Your task to perform on an android device: Go to display settings Image 0: 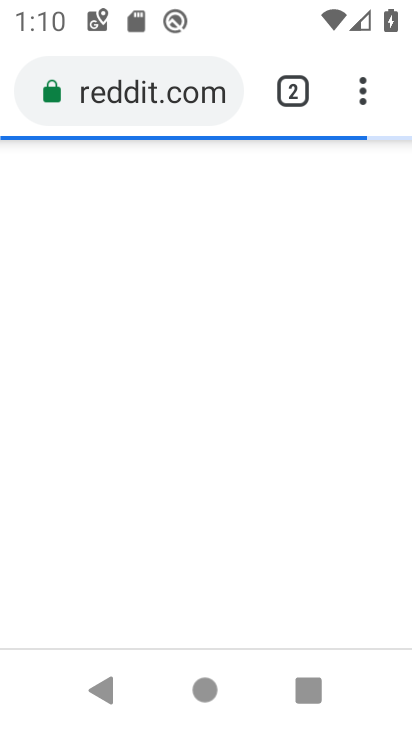
Step 0: press home button
Your task to perform on an android device: Go to display settings Image 1: 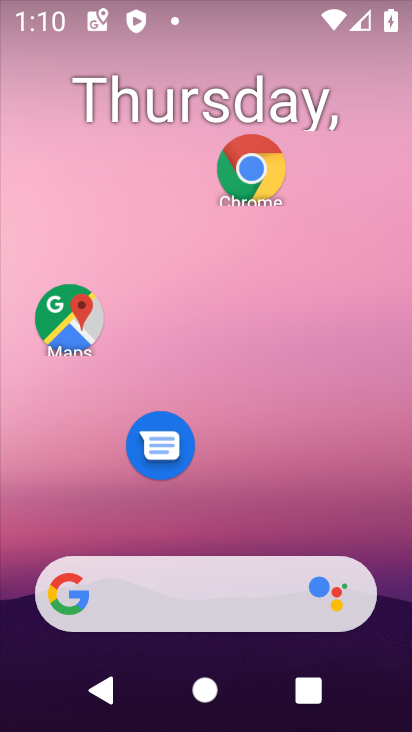
Step 1: drag from (230, 638) to (181, 231)
Your task to perform on an android device: Go to display settings Image 2: 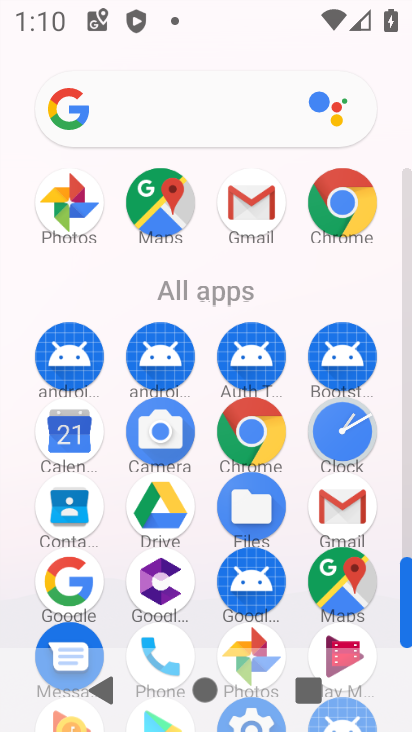
Step 2: drag from (120, 550) to (116, 413)
Your task to perform on an android device: Go to display settings Image 3: 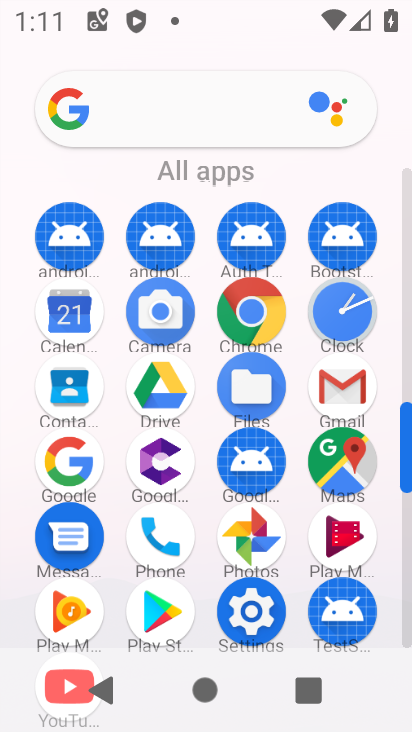
Step 3: click (242, 608)
Your task to perform on an android device: Go to display settings Image 4: 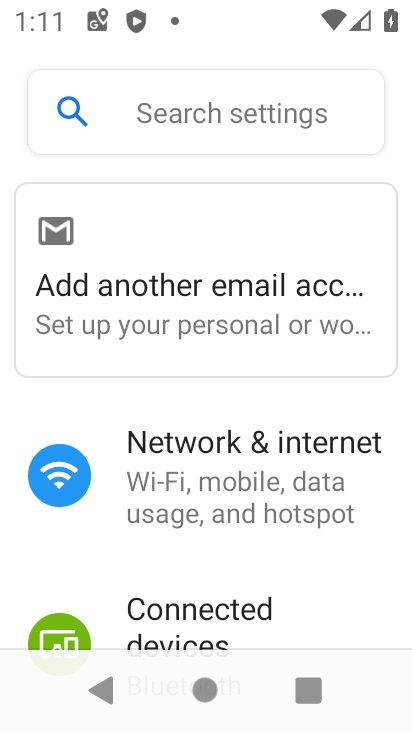
Step 4: drag from (200, 537) to (225, 262)
Your task to perform on an android device: Go to display settings Image 5: 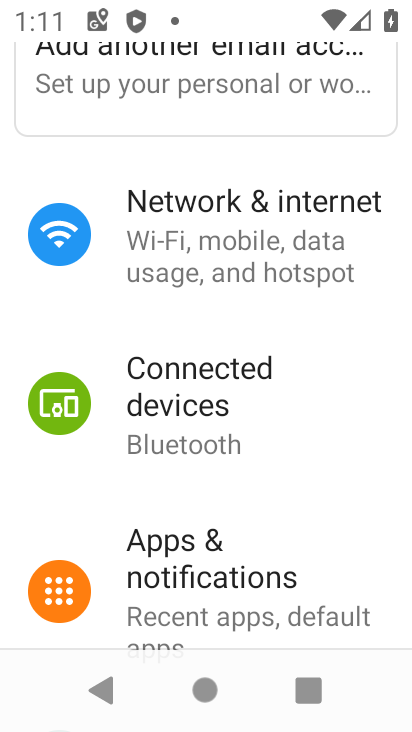
Step 5: drag from (198, 512) to (243, 277)
Your task to perform on an android device: Go to display settings Image 6: 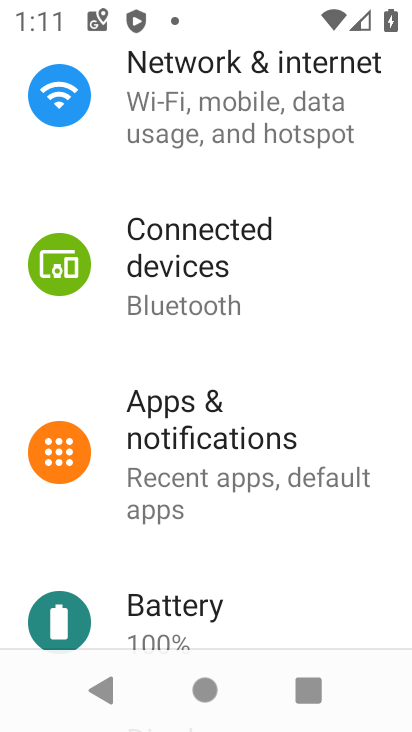
Step 6: drag from (182, 575) to (191, 527)
Your task to perform on an android device: Go to display settings Image 7: 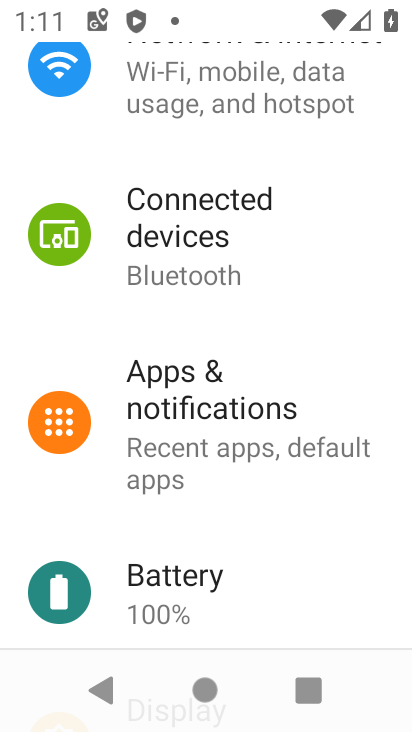
Step 7: drag from (214, 522) to (288, 333)
Your task to perform on an android device: Go to display settings Image 8: 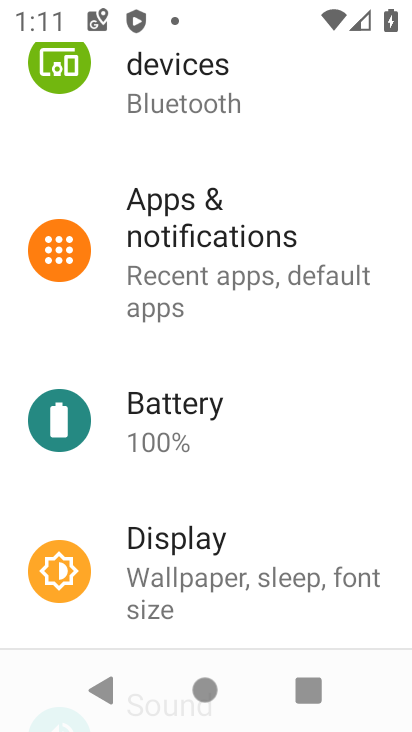
Step 8: click (167, 540)
Your task to perform on an android device: Go to display settings Image 9: 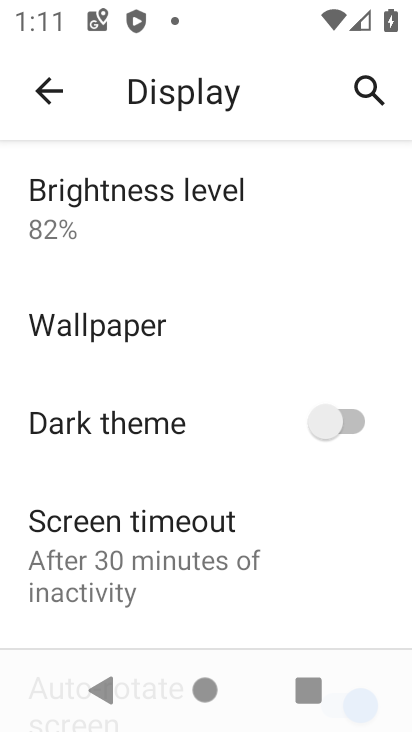
Step 9: task complete